Your task to perform on an android device: open a new tab in the chrome app Image 0: 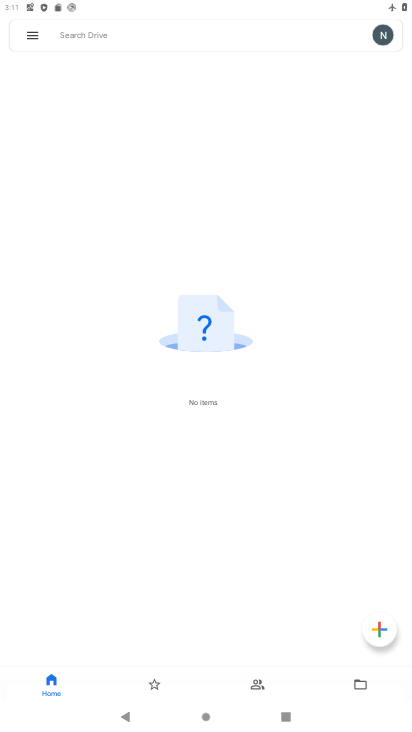
Step 0: press home button
Your task to perform on an android device: open a new tab in the chrome app Image 1: 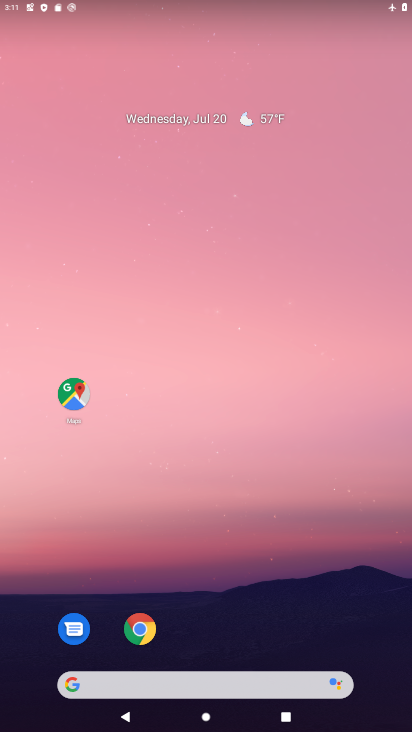
Step 1: click (145, 639)
Your task to perform on an android device: open a new tab in the chrome app Image 2: 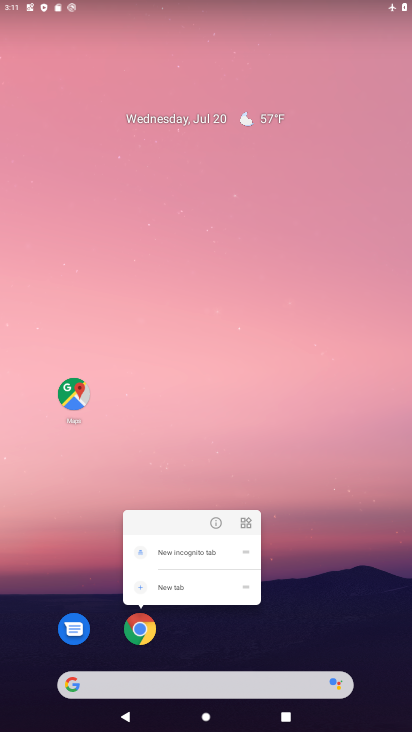
Step 2: click (138, 641)
Your task to perform on an android device: open a new tab in the chrome app Image 3: 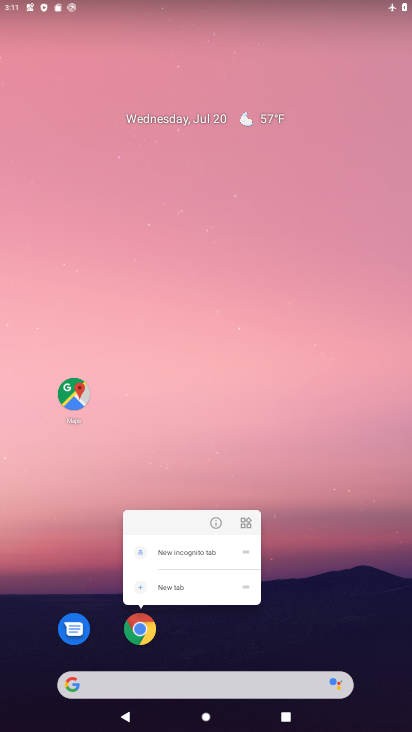
Step 3: click (147, 633)
Your task to perform on an android device: open a new tab in the chrome app Image 4: 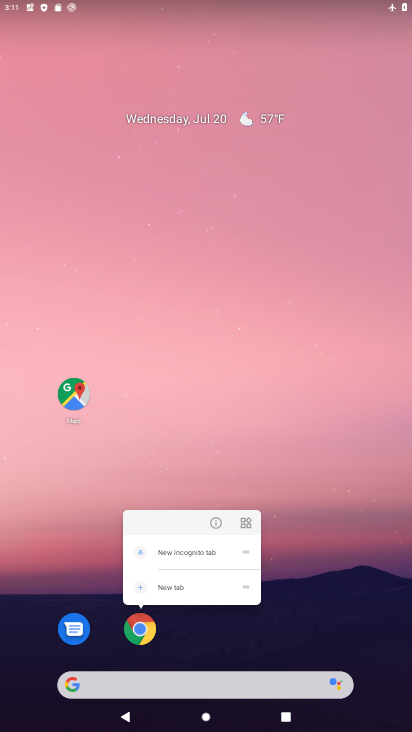
Step 4: click (170, 633)
Your task to perform on an android device: open a new tab in the chrome app Image 5: 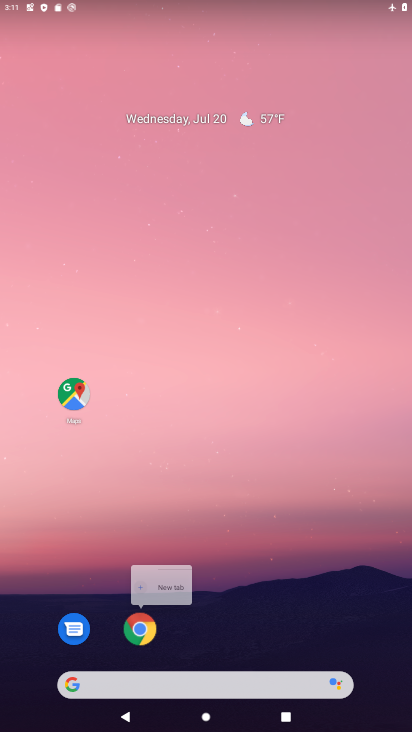
Step 5: click (150, 647)
Your task to perform on an android device: open a new tab in the chrome app Image 6: 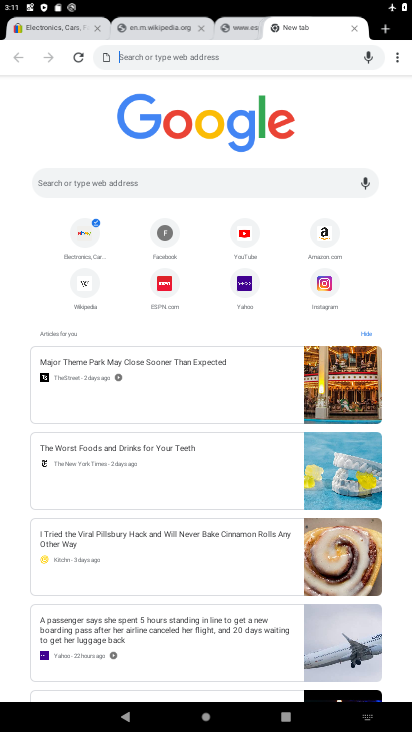
Step 6: click (386, 24)
Your task to perform on an android device: open a new tab in the chrome app Image 7: 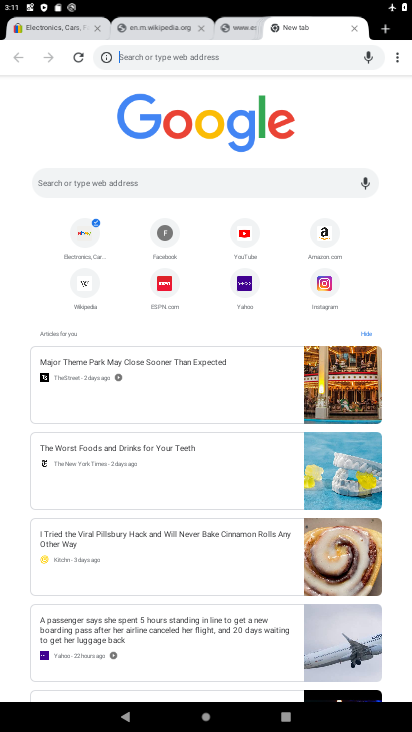
Step 7: task complete